Your task to perform on an android device: turn on javascript in the chrome app Image 0: 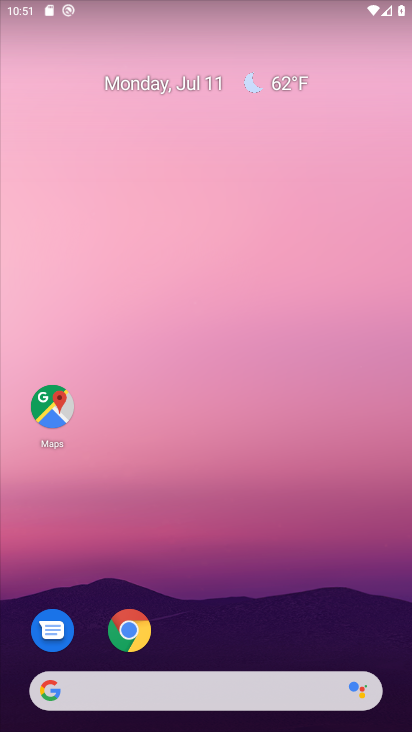
Step 0: click (135, 637)
Your task to perform on an android device: turn on javascript in the chrome app Image 1: 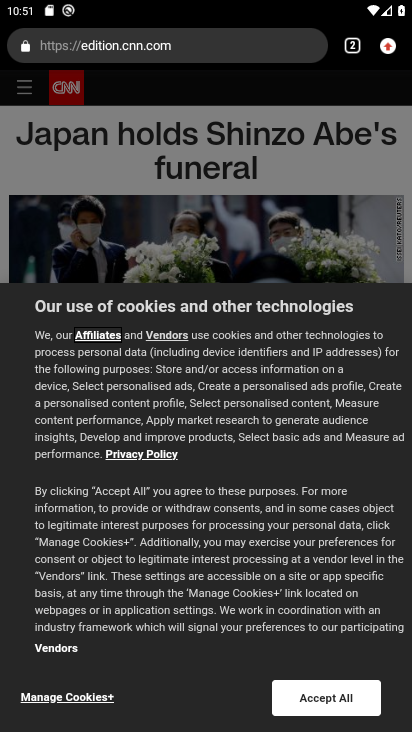
Step 1: click (388, 46)
Your task to perform on an android device: turn on javascript in the chrome app Image 2: 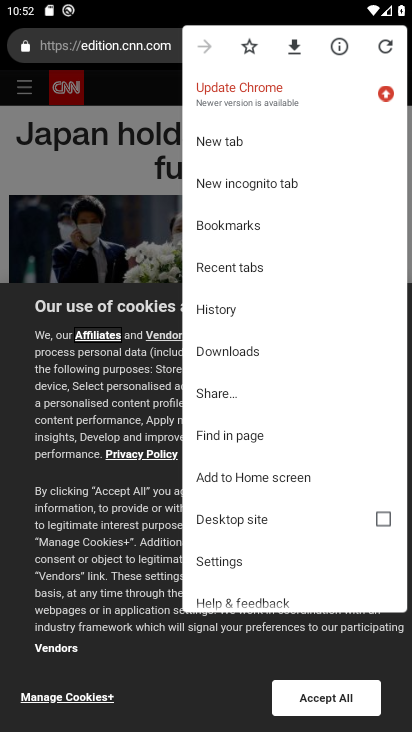
Step 2: click (245, 554)
Your task to perform on an android device: turn on javascript in the chrome app Image 3: 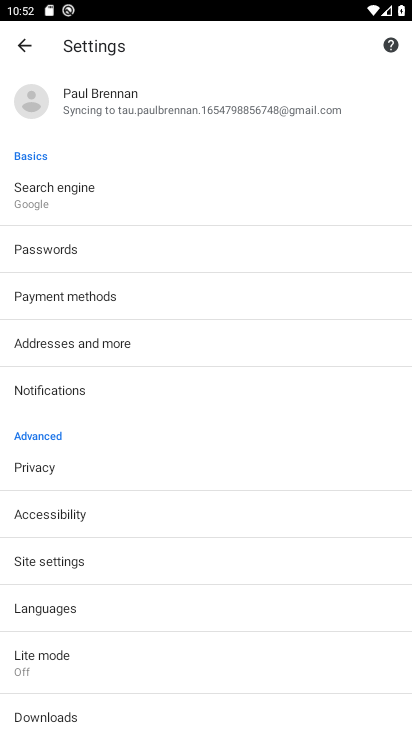
Step 3: click (245, 554)
Your task to perform on an android device: turn on javascript in the chrome app Image 4: 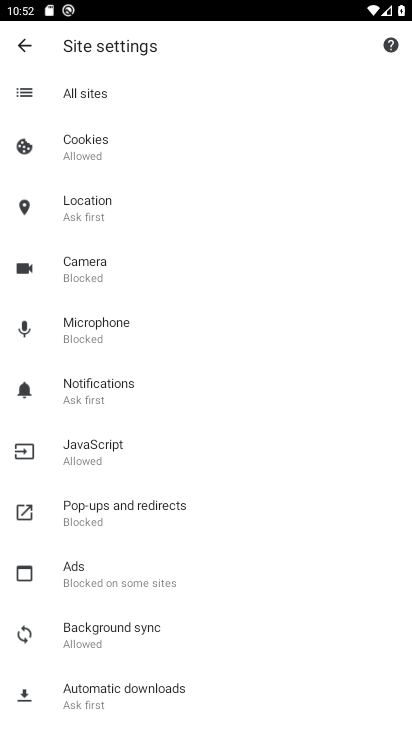
Step 4: click (117, 452)
Your task to perform on an android device: turn on javascript in the chrome app Image 5: 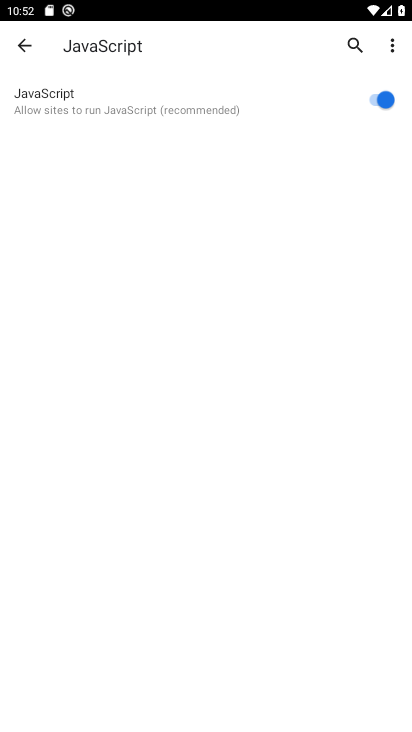
Step 5: task complete